Your task to perform on an android device: Check the news Image 0: 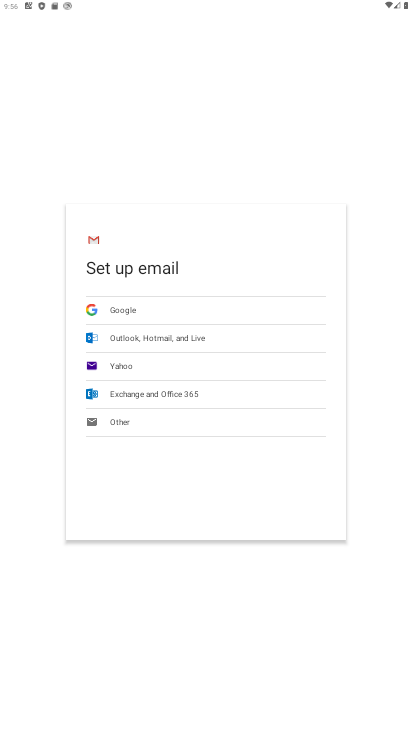
Step 0: press home button
Your task to perform on an android device: Check the news Image 1: 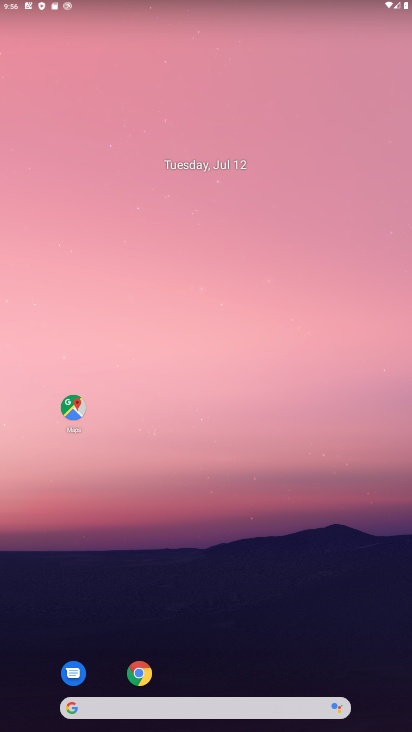
Step 1: click (150, 711)
Your task to perform on an android device: Check the news Image 2: 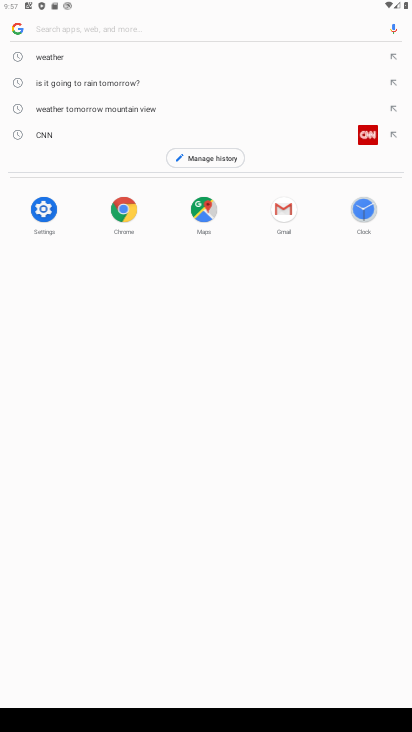
Step 2: type "news"
Your task to perform on an android device: Check the news Image 3: 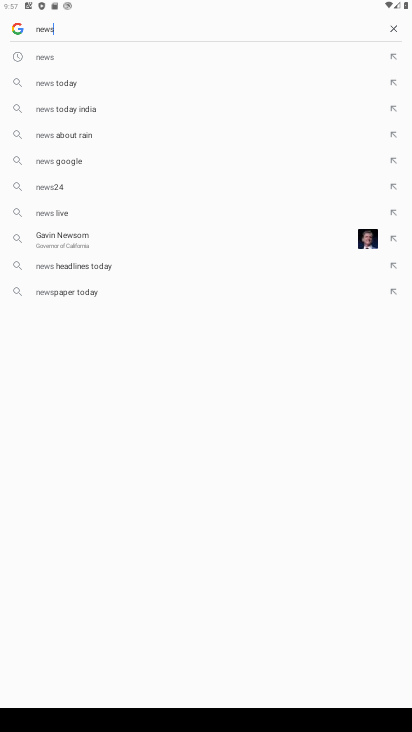
Step 3: click (44, 62)
Your task to perform on an android device: Check the news Image 4: 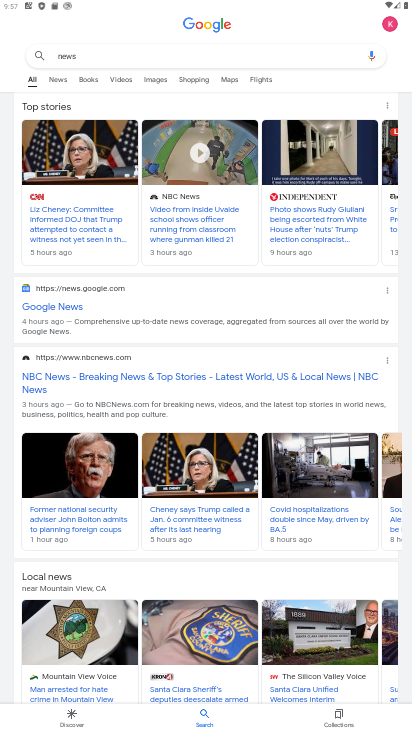
Step 4: task complete